Your task to perform on an android device: Go to location settings Image 0: 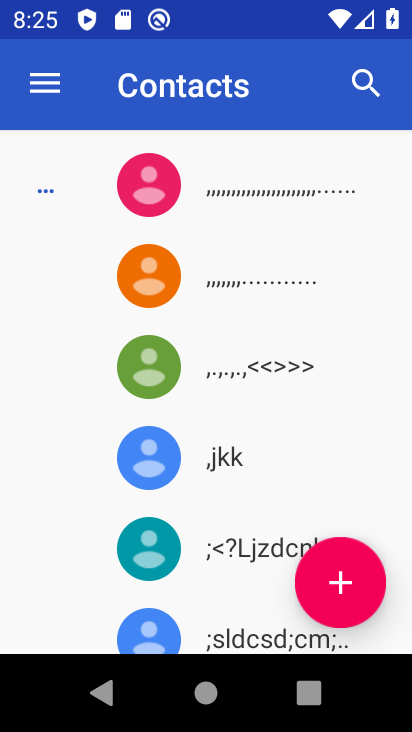
Step 0: press home button
Your task to perform on an android device: Go to location settings Image 1: 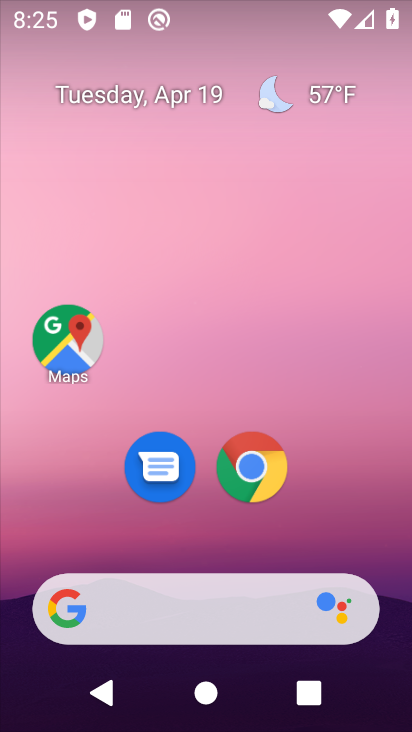
Step 1: drag from (373, 521) to (307, 30)
Your task to perform on an android device: Go to location settings Image 2: 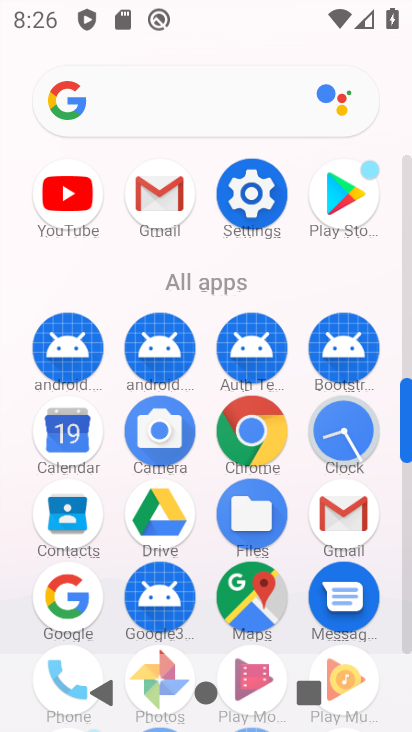
Step 2: click (259, 195)
Your task to perform on an android device: Go to location settings Image 3: 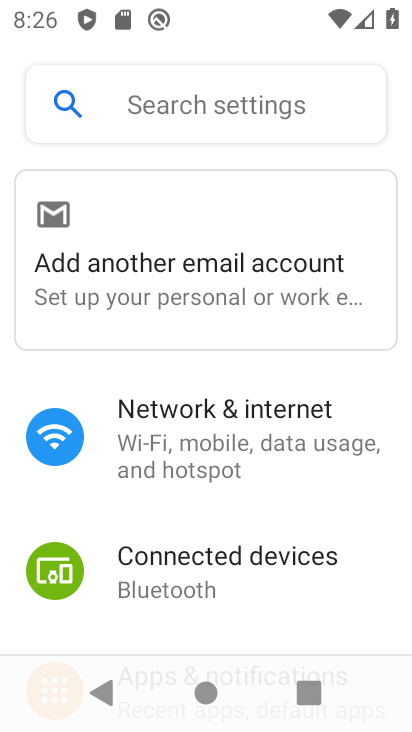
Step 3: drag from (384, 534) to (340, 0)
Your task to perform on an android device: Go to location settings Image 4: 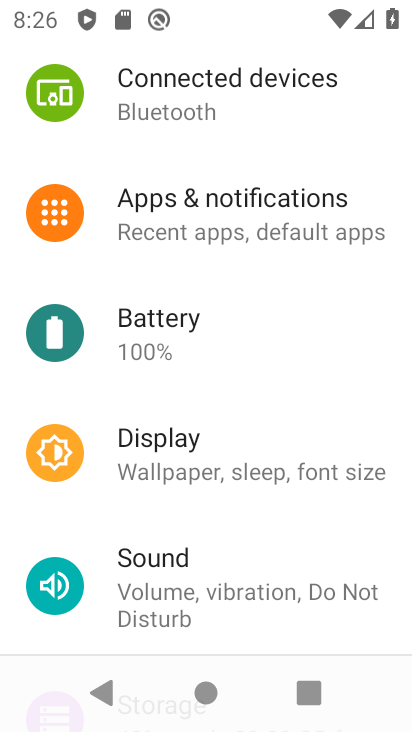
Step 4: drag from (265, 460) to (226, 63)
Your task to perform on an android device: Go to location settings Image 5: 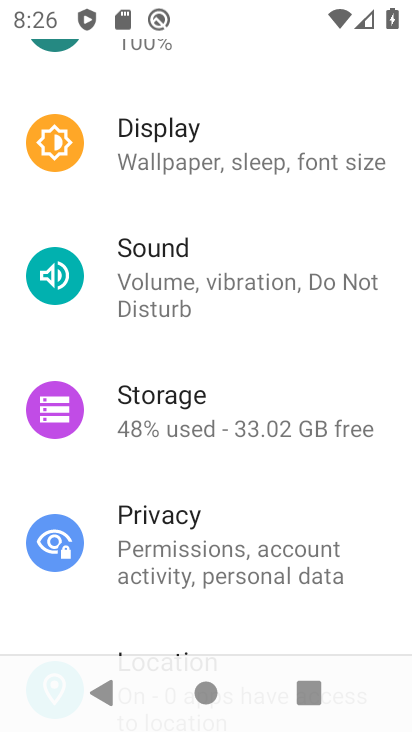
Step 5: drag from (299, 543) to (250, 134)
Your task to perform on an android device: Go to location settings Image 6: 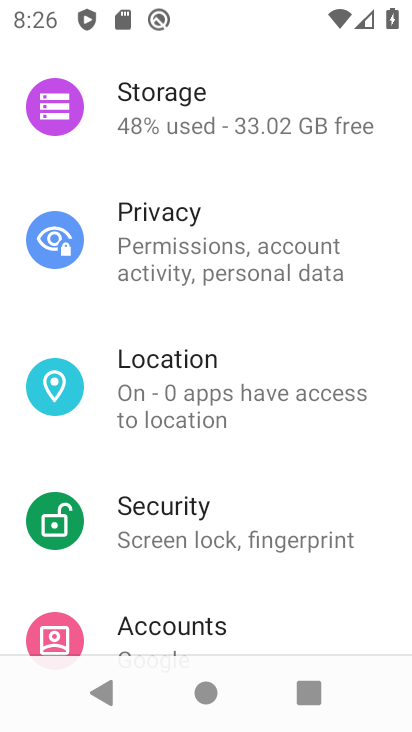
Step 6: click (159, 381)
Your task to perform on an android device: Go to location settings Image 7: 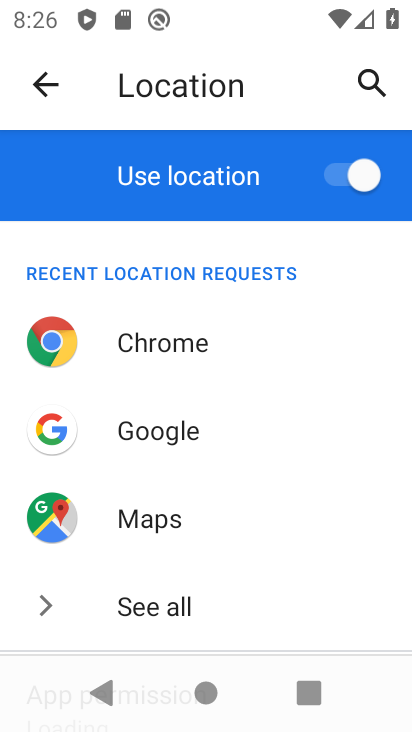
Step 7: task complete